Your task to perform on an android device: open chrome and create a bookmark for the current page Image 0: 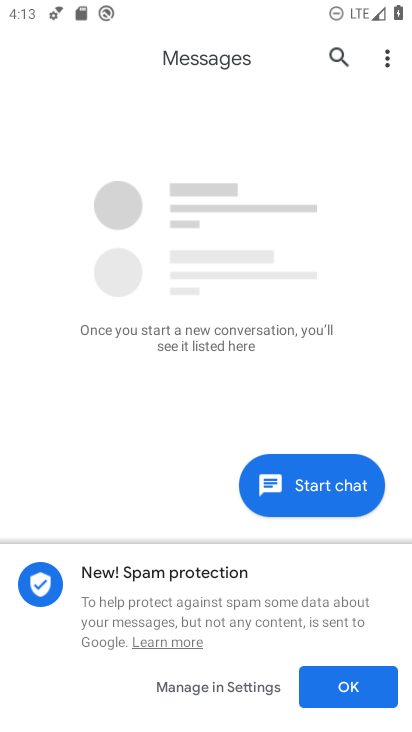
Step 0: press home button
Your task to perform on an android device: open chrome and create a bookmark for the current page Image 1: 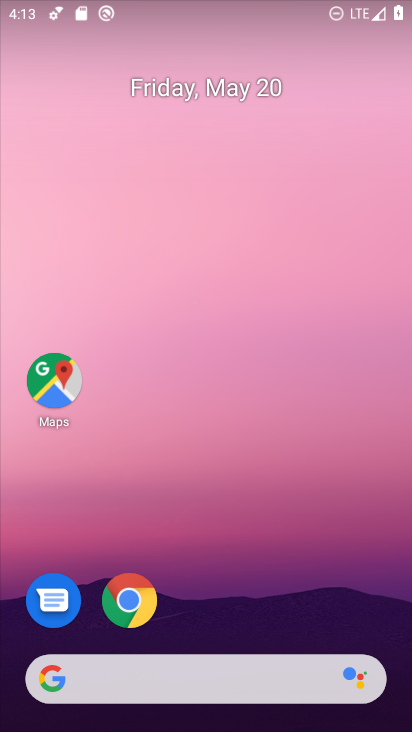
Step 1: click (125, 603)
Your task to perform on an android device: open chrome and create a bookmark for the current page Image 2: 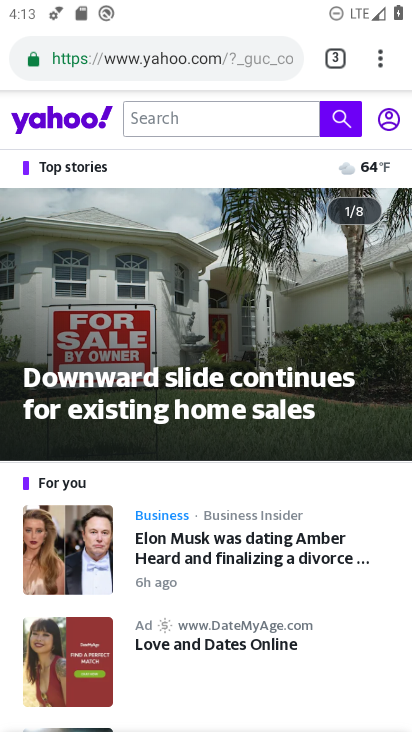
Step 2: task complete